Your task to perform on an android device: Is it going to rain this weekend? Image 0: 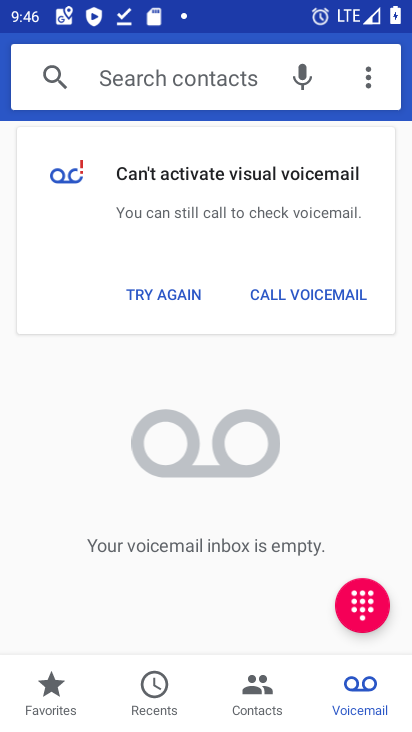
Step 0: press home button
Your task to perform on an android device: Is it going to rain this weekend? Image 1: 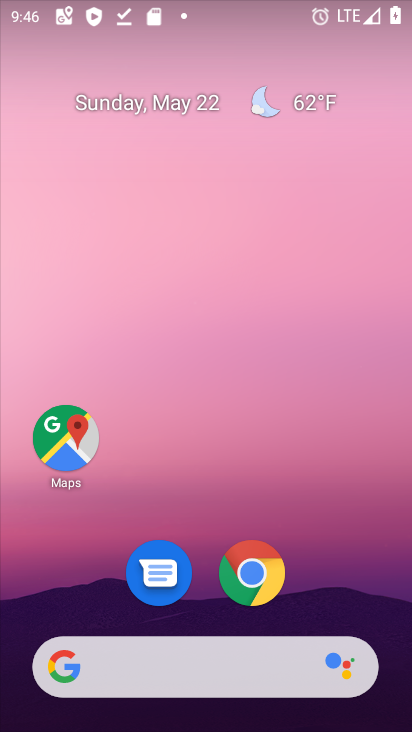
Step 1: drag from (276, 700) to (279, 79)
Your task to perform on an android device: Is it going to rain this weekend? Image 2: 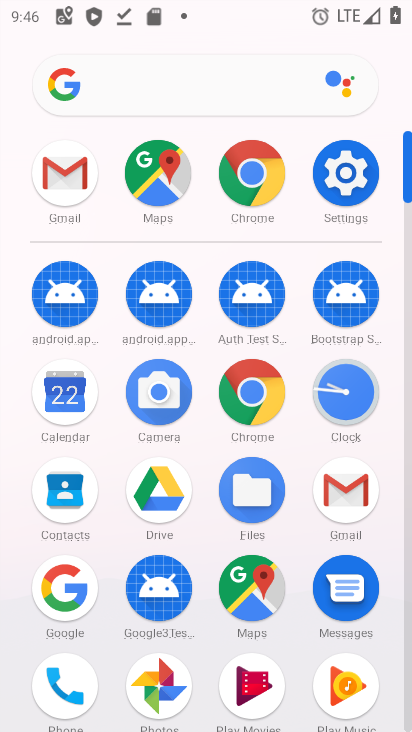
Step 2: press home button
Your task to perform on an android device: Is it going to rain this weekend? Image 3: 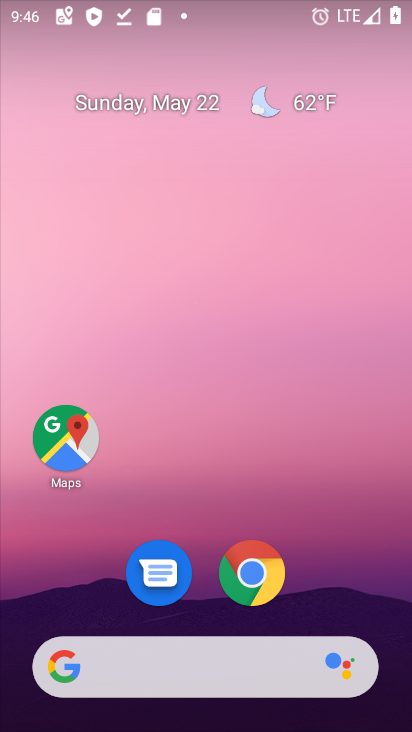
Step 3: click (291, 91)
Your task to perform on an android device: Is it going to rain this weekend? Image 4: 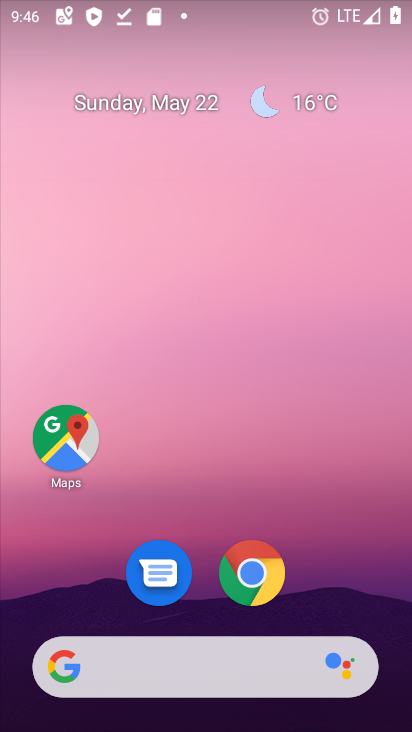
Step 4: click (292, 100)
Your task to perform on an android device: Is it going to rain this weekend? Image 5: 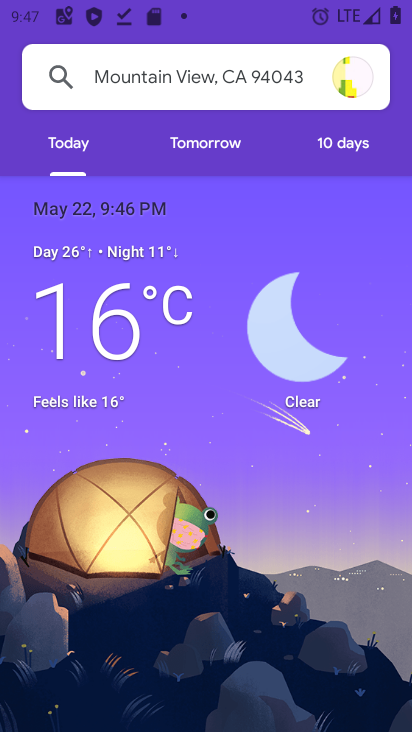
Step 5: click (206, 163)
Your task to perform on an android device: Is it going to rain this weekend? Image 6: 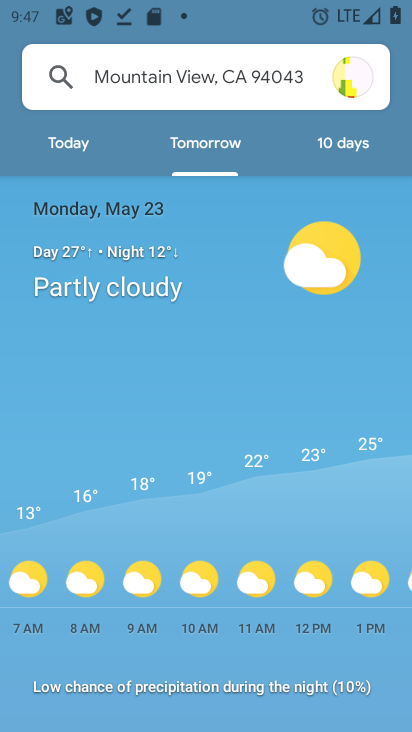
Step 6: task complete